Your task to perform on an android device: turn on showing notifications on the lock screen Image 0: 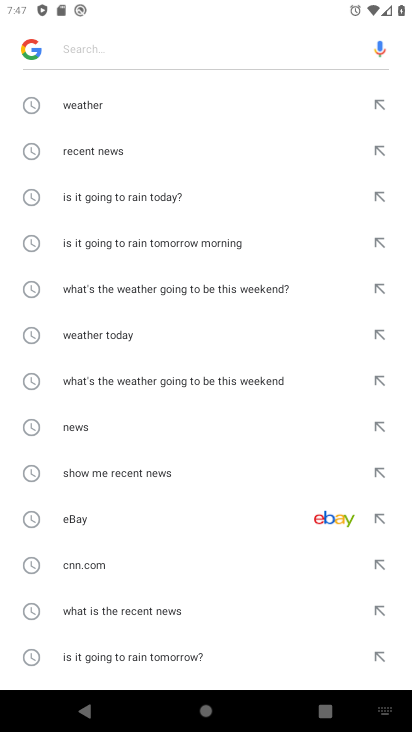
Step 0: press home button
Your task to perform on an android device: turn on showing notifications on the lock screen Image 1: 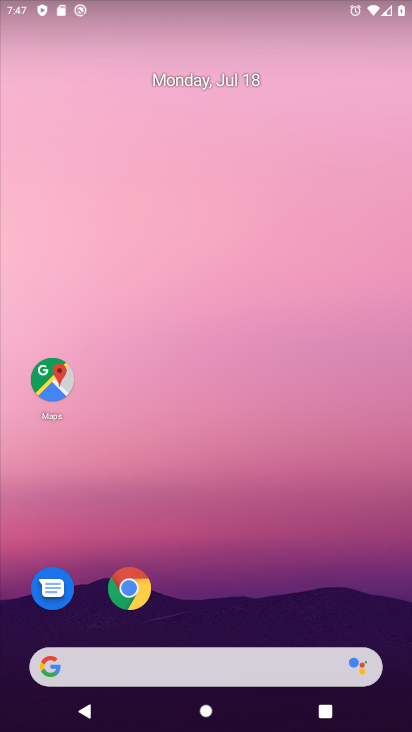
Step 1: drag from (170, 620) to (238, 120)
Your task to perform on an android device: turn on showing notifications on the lock screen Image 2: 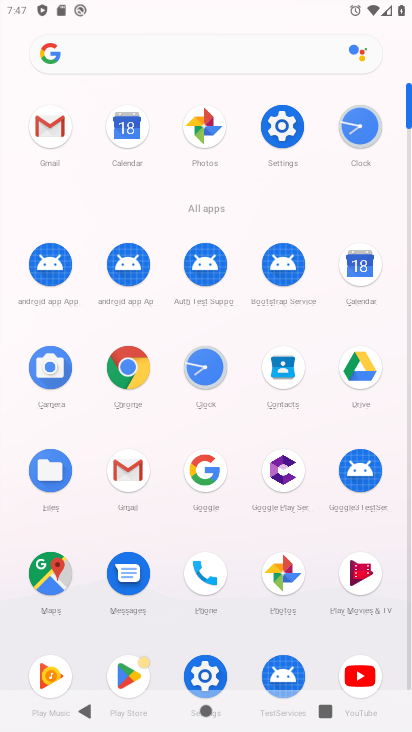
Step 2: click (284, 123)
Your task to perform on an android device: turn on showing notifications on the lock screen Image 3: 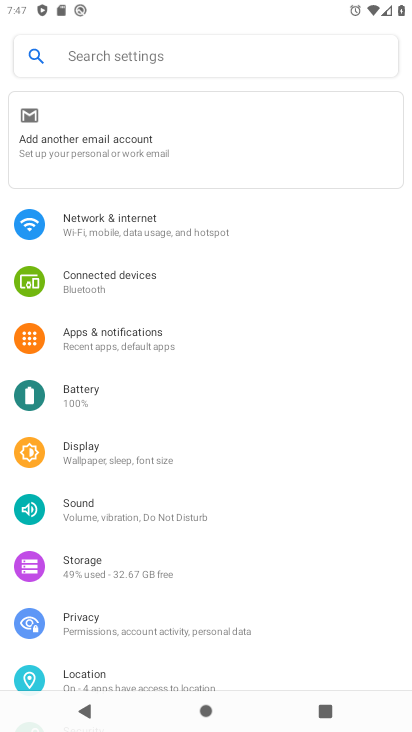
Step 3: click (126, 343)
Your task to perform on an android device: turn on showing notifications on the lock screen Image 4: 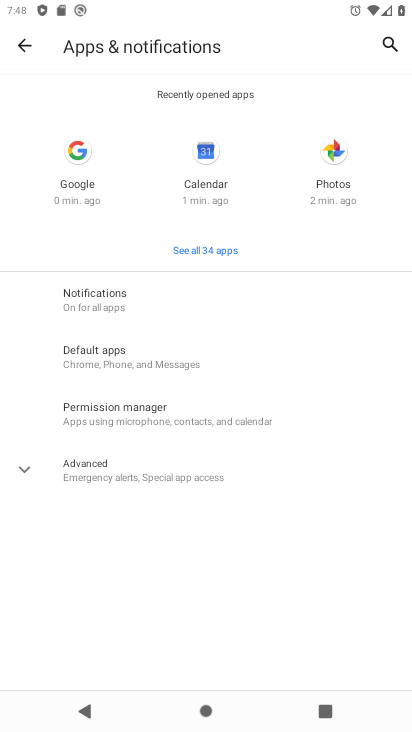
Step 4: click (118, 296)
Your task to perform on an android device: turn on showing notifications on the lock screen Image 5: 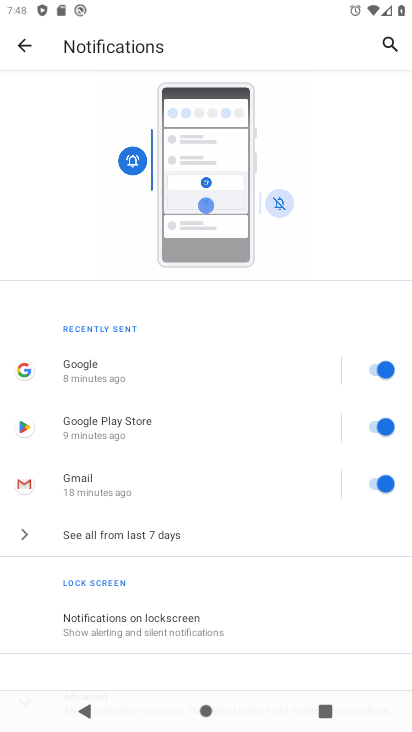
Step 5: click (165, 610)
Your task to perform on an android device: turn on showing notifications on the lock screen Image 6: 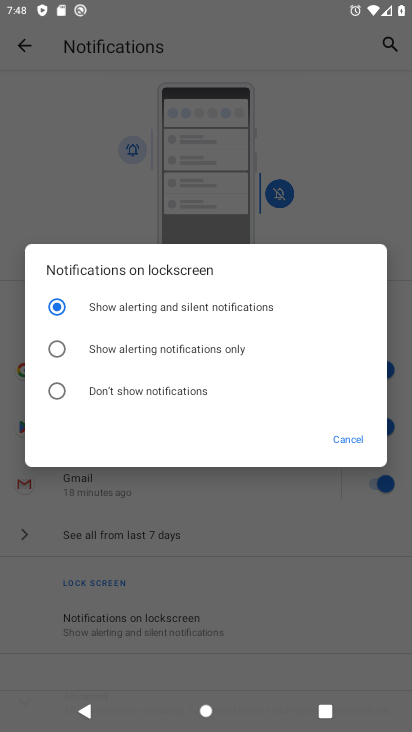
Step 6: task complete